Your task to perform on an android device: Open accessibility settings Image 0: 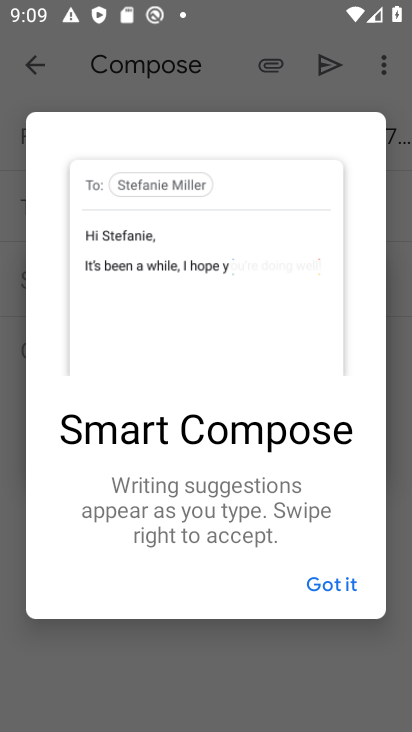
Step 0: press home button
Your task to perform on an android device: Open accessibility settings Image 1: 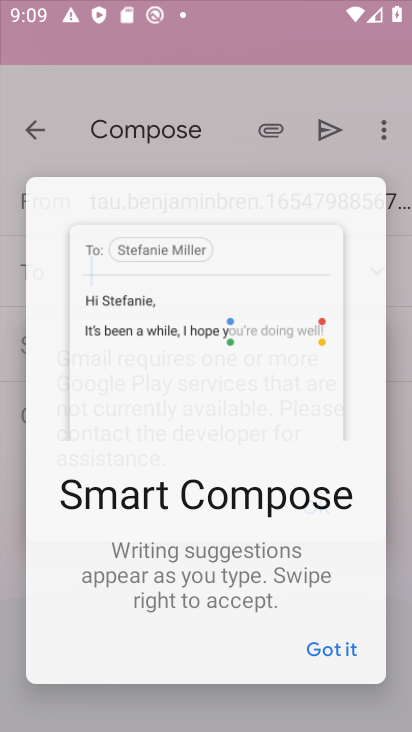
Step 1: press home button
Your task to perform on an android device: Open accessibility settings Image 2: 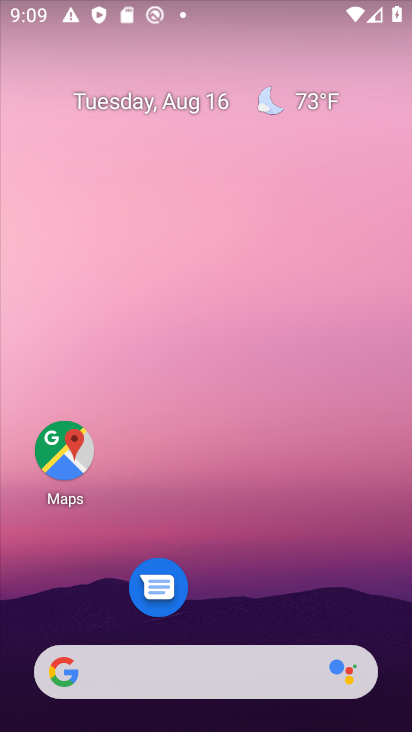
Step 2: drag from (226, 633) to (196, 0)
Your task to perform on an android device: Open accessibility settings Image 3: 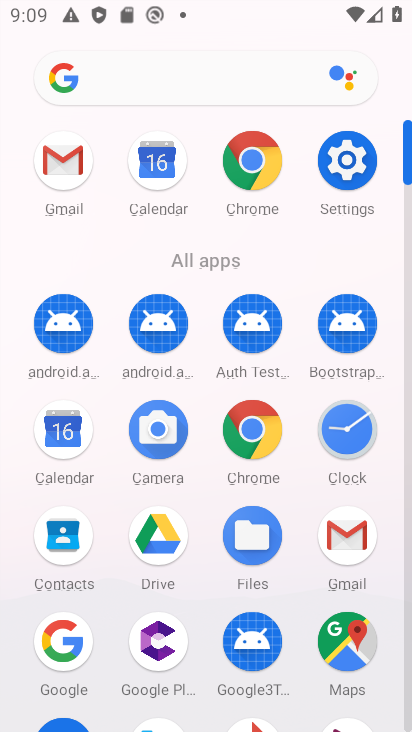
Step 3: click (336, 144)
Your task to perform on an android device: Open accessibility settings Image 4: 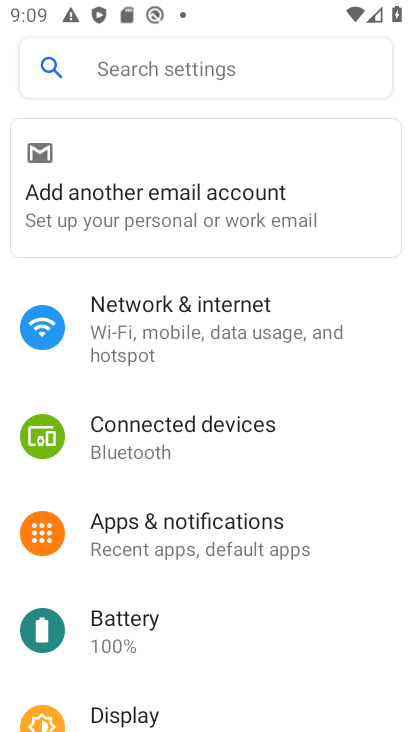
Step 4: drag from (281, 641) to (265, 49)
Your task to perform on an android device: Open accessibility settings Image 5: 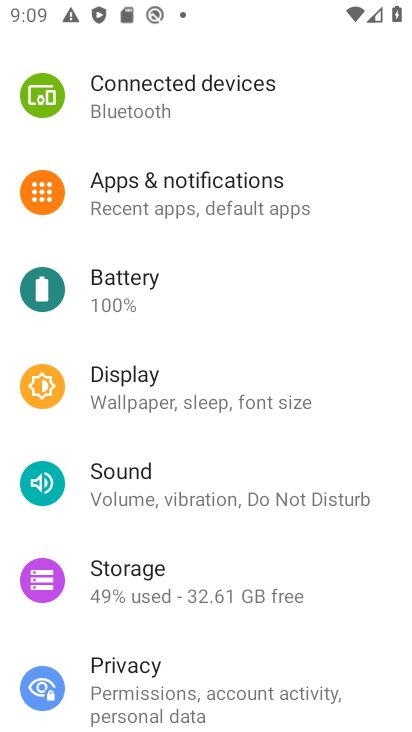
Step 5: drag from (197, 635) to (151, 213)
Your task to perform on an android device: Open accessibility settings Image 6: 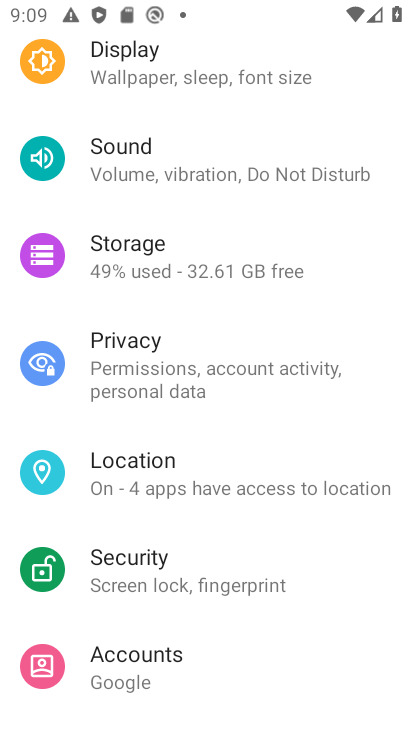
Step 6: drag from (267, 688) to (241, 24)
Your task to perform on an android device: Open accessibility settings Image 7: 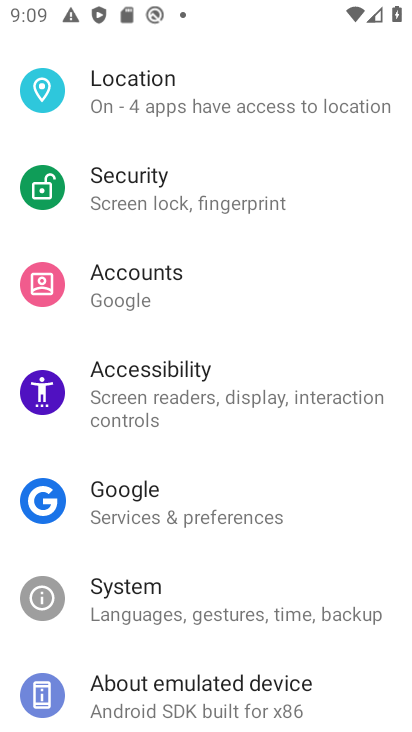
Step 7: click (75, 366)
Your task to perform on an android device: Open accessibility settings Image 8: 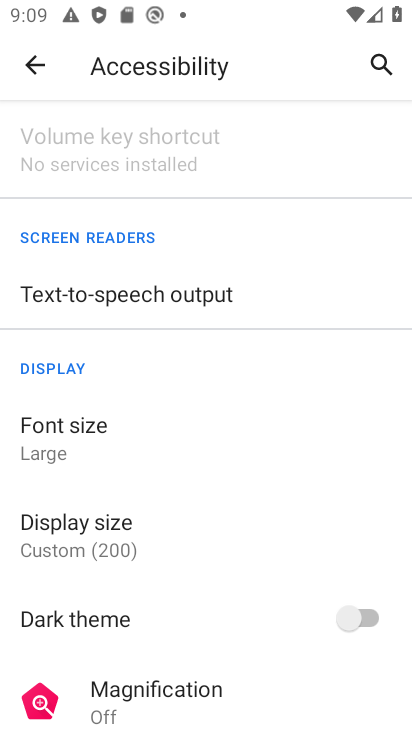
Step 8: task complete